Your task to perform on an android device: Search for vegetarian restaurants on Maps Image 0: 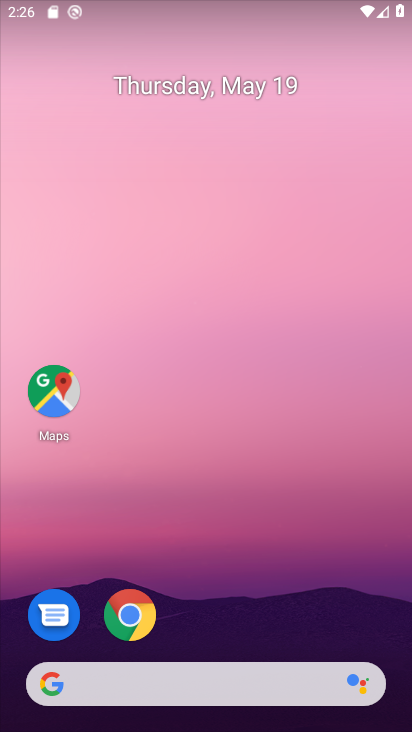
Step 0: drag from (235, 578) to (221, 24)
Your task to perform on an android device: Search for vegetarian restaurants on Maps Image 1: 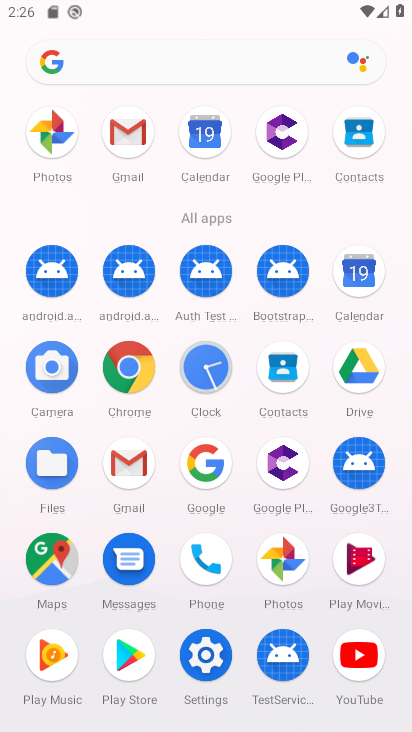
Step 1: drag from (7, 543) to (10, 244)
Your task to perform on an android device: Search for vegetarian restaurants on Maps Image 2: 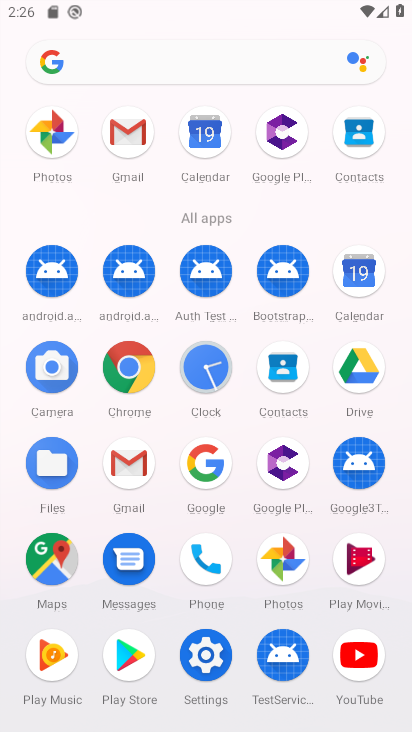
Step 2: click (46, 551)
Your task to perform on an android device: Search for vegetarian restaurants on Maps Image 3: 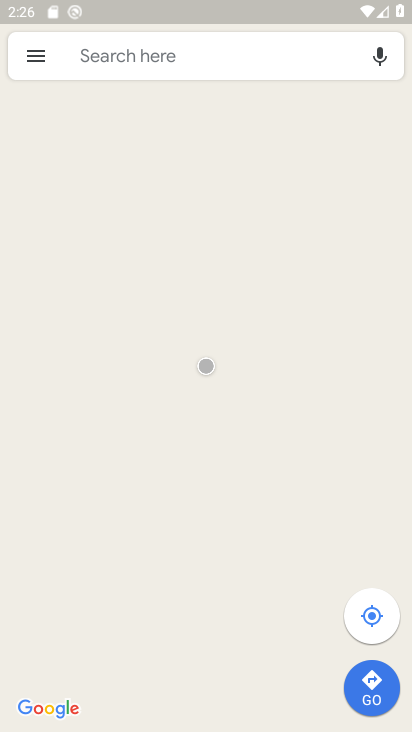
Step 3: click (241, 56)
Your task to perform on an android device: Search for vegetarian restaurants on Maps Image 4: 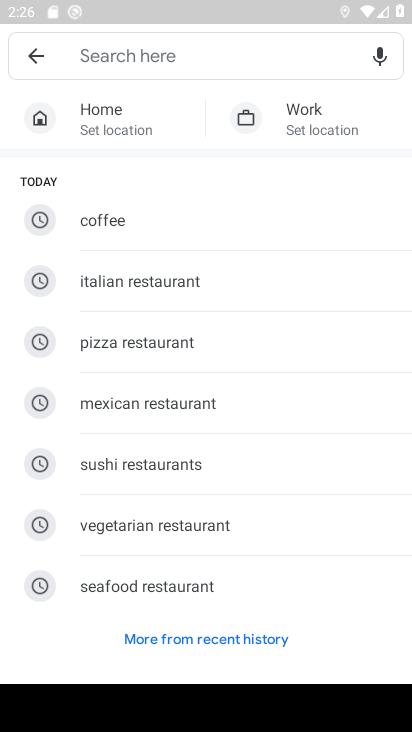
Step 4: click (154, 517)
Your task to perform on an android device: Search for vegetarian restaurants on Maps Image 5: 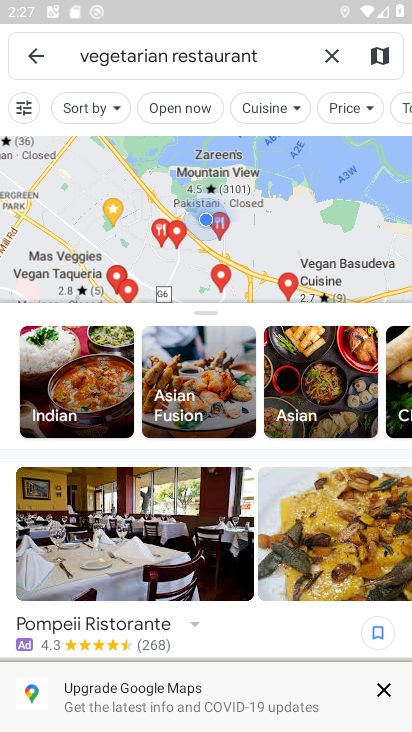
Step 5: task complete